Your task to perform on an android device: turn vacation reply on in the gmail app Image 0: 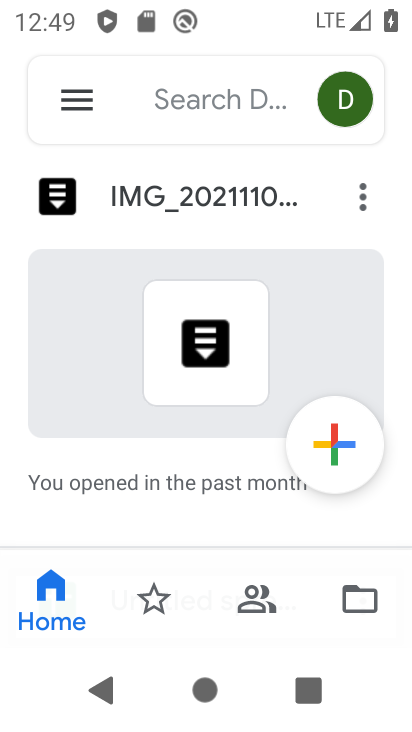
Step 0: press home button
Your task to perform on an android device: turn vacation reply on in the gmail app Image 1: 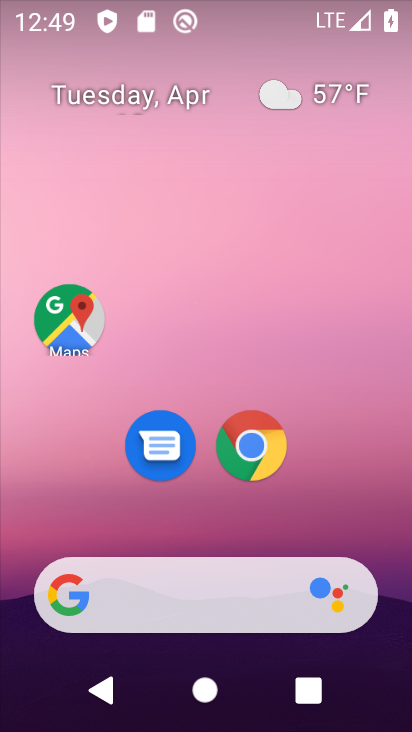
Step 1: drag from (333, 449) to (346, 98)
Your task to perform on an android device: turn vacation reply on in the gmail app Image 2: 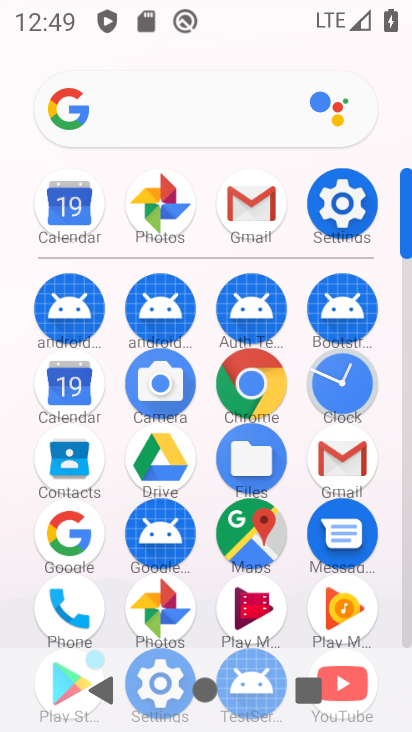
Step 2: click (273, 187)
Your task to perform on an android device: turn vacation reply on in the gmail app Image 3: 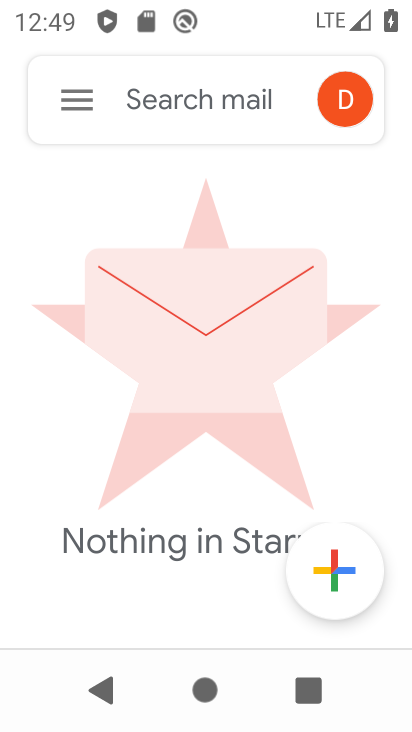
Step 3: click (71, 92)
Your task to perform on an android device: turn vacation reply on in the gmail app Image 4: 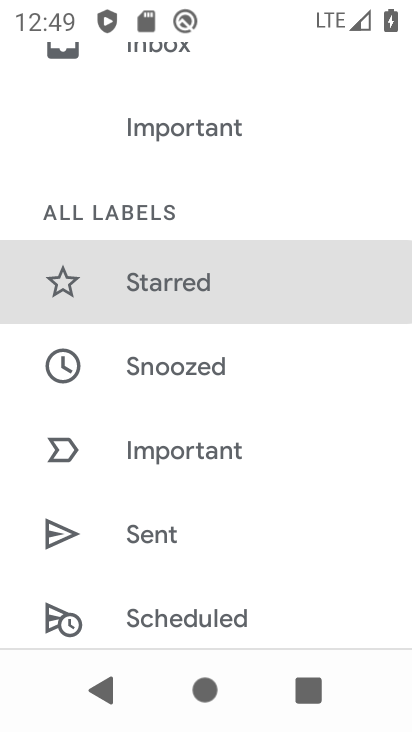
Step 4: drag from (197, 493) to (256, 108)
Your task to perform on an android device: turn vacation reply on in the gmail app Image 5: 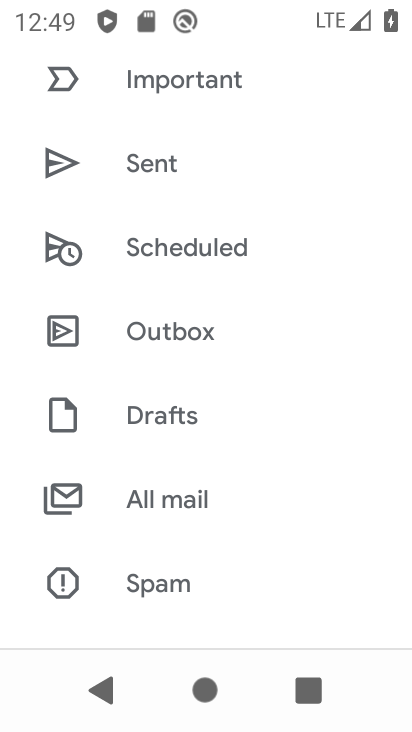
Step 5: drag from (229, 490) to (263, 138)
Your task to perform on an android device: turn vacation reply on in the gmail app Image 6: 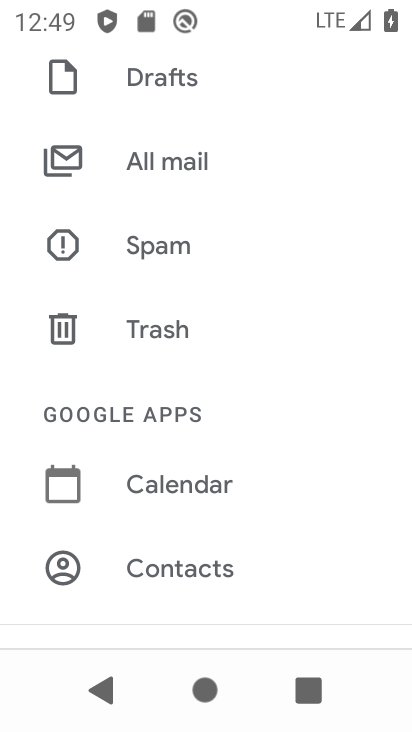
Step 6: drag from (242, 338) to (266, 202)
Your task to perform on an android device: turn vacation reply on in the gmail app Image 7: 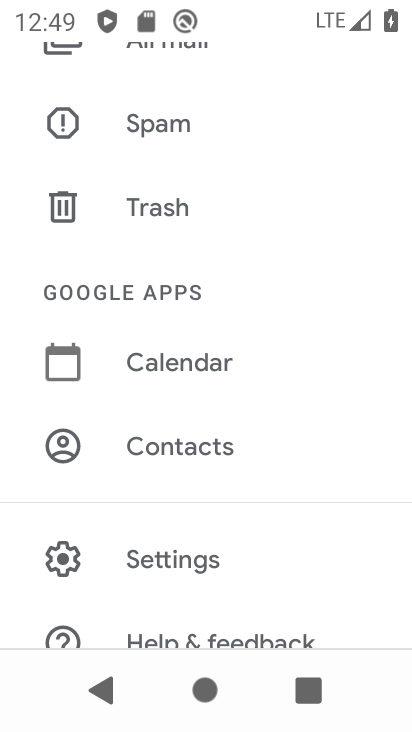
Step 7: click (192, 554)
Your task to perform on an android device: turn vacation reply on in the gmail app Image 8: 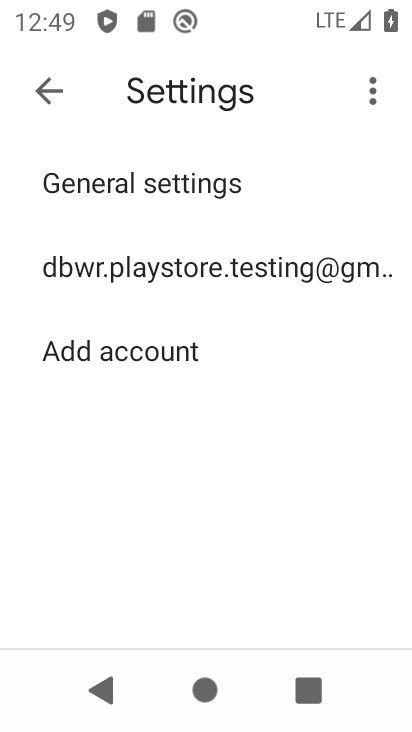
Step 8: click (287, 263)
Your task to perform on an android device: turn vacation reply on in the gmail app Image 9: 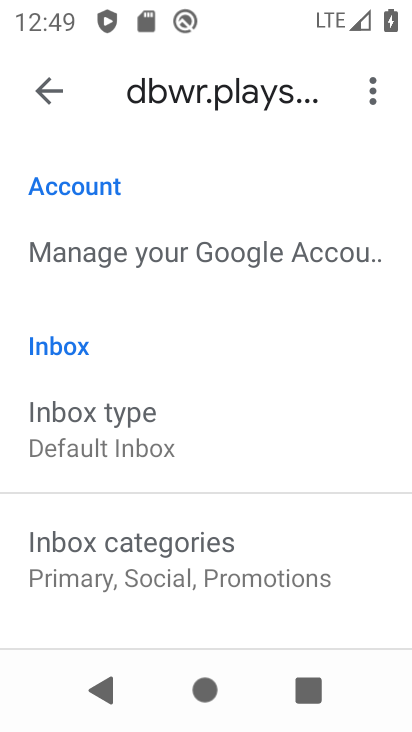
Step 9: drag from (263, 533) to (298, 159)
Your task to perform on an android device: turn vacation reply on in the gmail app Image 10: 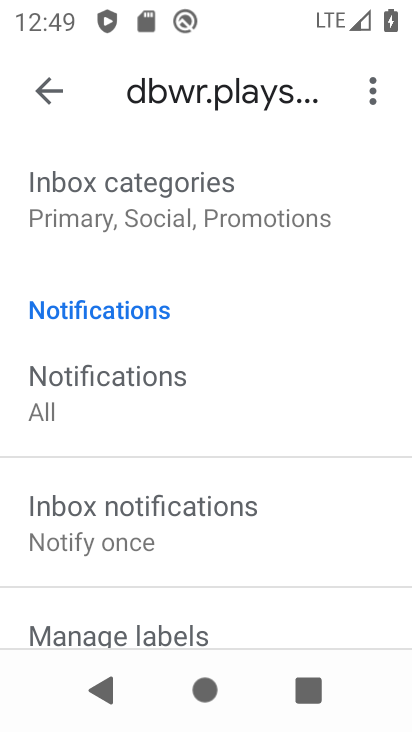
Step 10: drag from (205, 545) to (286, 155)
Your task to perform on an android device: turn vacation reply on in the gmail app Image 11: 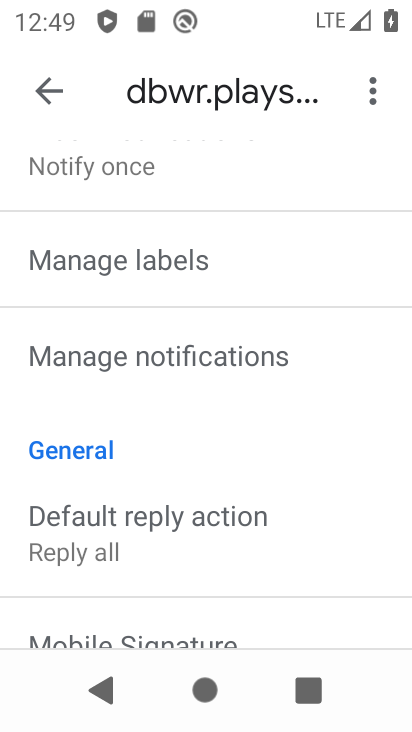
Step 11: drag from (215, 586) to (299, 182)
Your task to perform on an android device: turn vacation reply on in the gmail app Image 12: 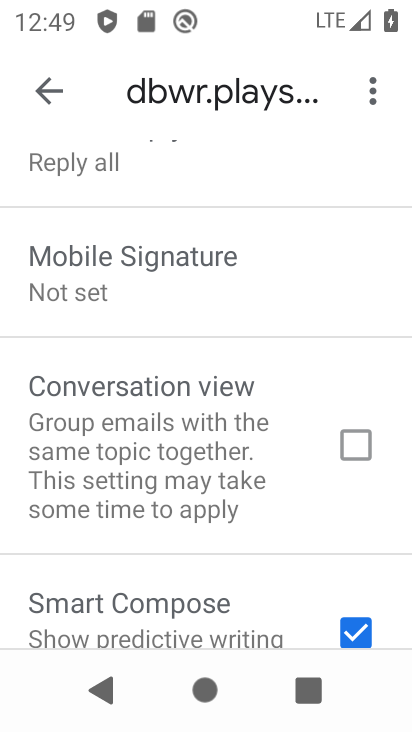
Step 12: drag from (250, 511) to (295, 153)
Your task to perform on an android device: turn vacation reply on in the gmail app Image 13: 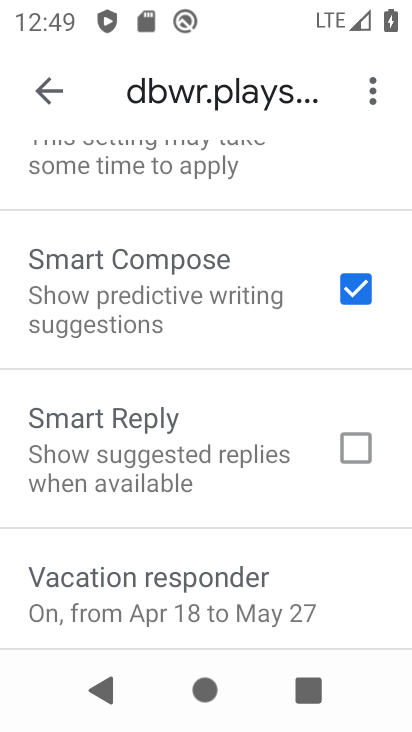
Step 13: drag from (209, 550) to (276, 195)
Your task to perform on an android device: turn vacation reply on in the gmail app Image 14: 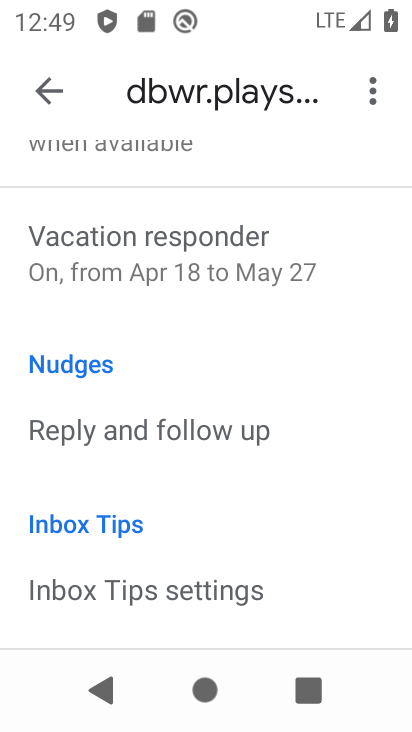
Step 14: click (260, 274)
Your task to perform on an android device: turn vacation reply on in the gmail app Image 15: 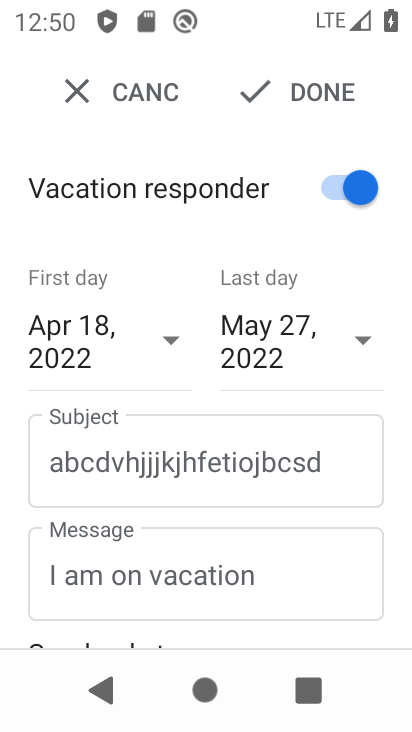
Step 15: task complete